Your task to perform on an android device: toggle data saver in the chrome app Image 0: 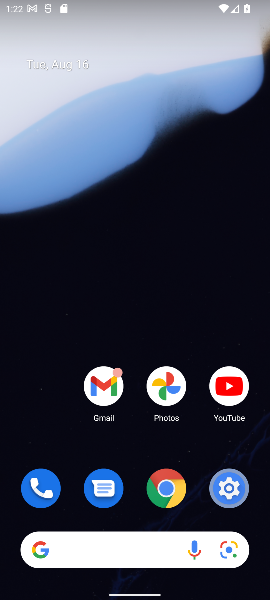
Step 0: click (179, 489)
Your task to perform on an android device: toggle data saver in the chrome app Image 1: 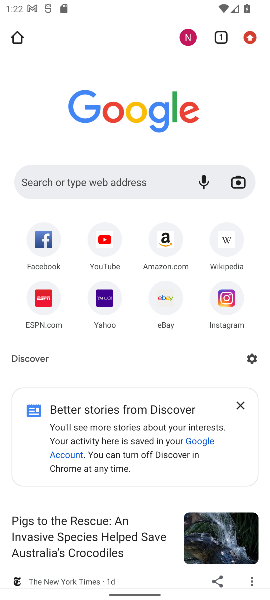
Step 1: task complete